Your task to perform on an android device: change the clock display to show seconds Image 0: 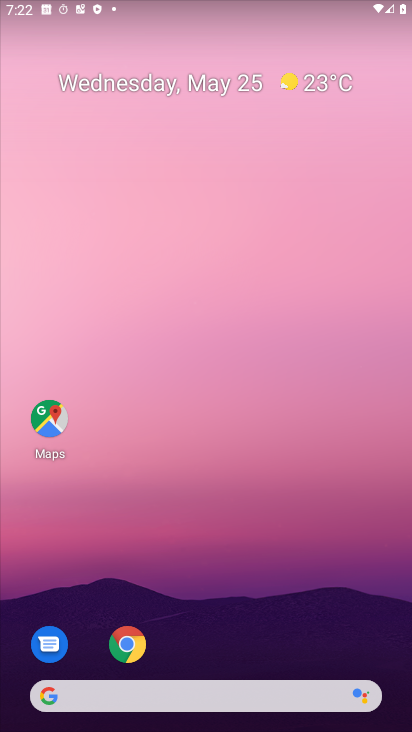
Step 0: press home button
Your task to perform on an android device: change the clock display to show seconds Image 1: 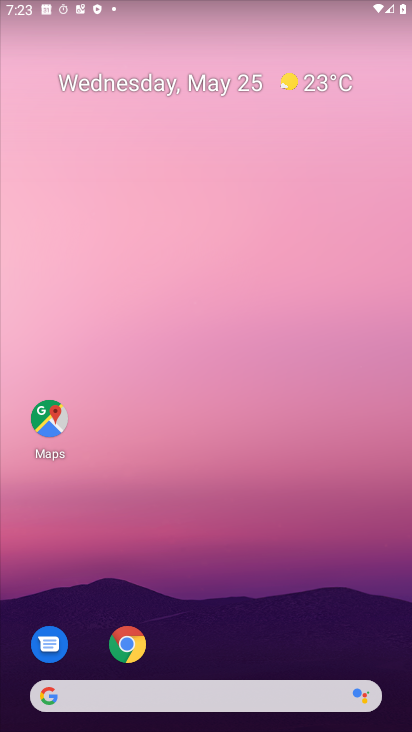
Step 1: drag from (267, 700) to (197, 64)
Your task to perform on an android device: change the clock display to show seconds Image 2: 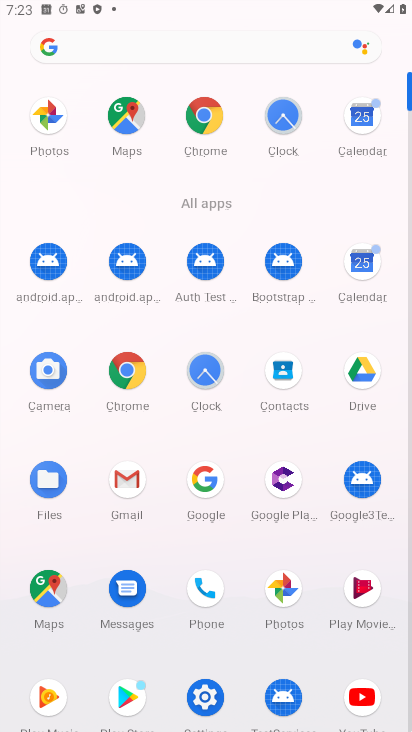
Step 2: click (277, 128)
Your task to perform on an android device: change the clock display to show seconds Image 3: 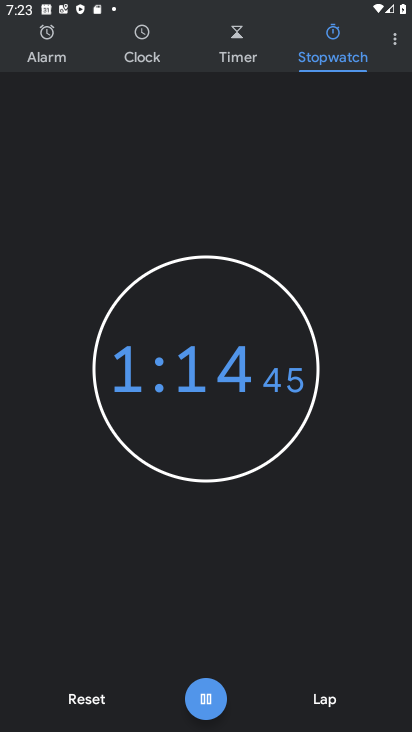
Step 3: click (397, 36)
Your task to perform on an android device: change the clock display to show seconds Image 4: 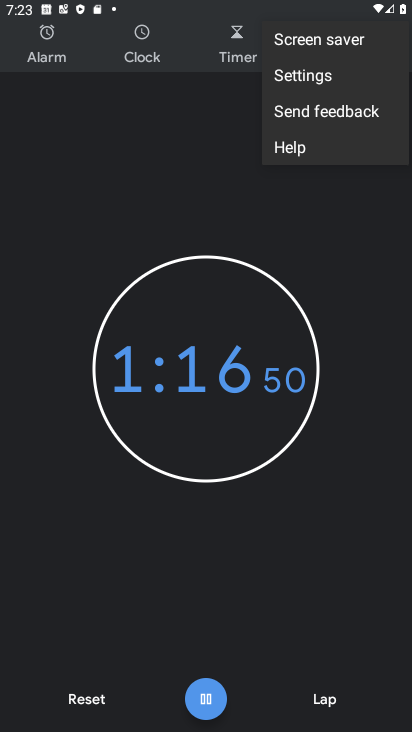
Step 4: click (311, 81)
Your task to perform on an android device: change the clock display to show seconds Image 5: 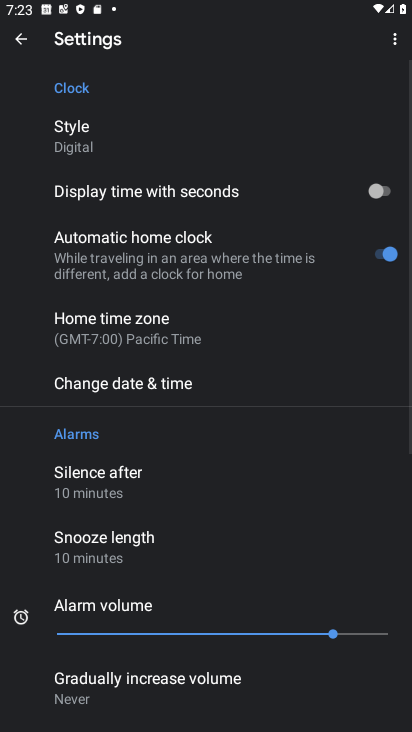
Step 5: click (380, 195)
Your task to perform on an android device: change the clock display to show seconds Image 6: 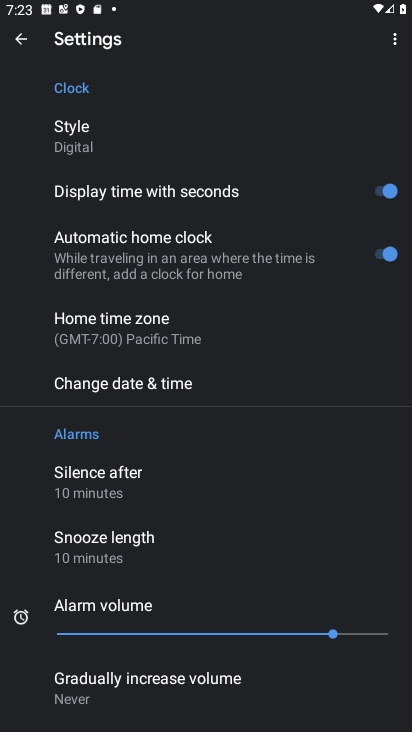
Step 6: task complete